Your task to perform on an android device: star an email in the gmail app Image 0: 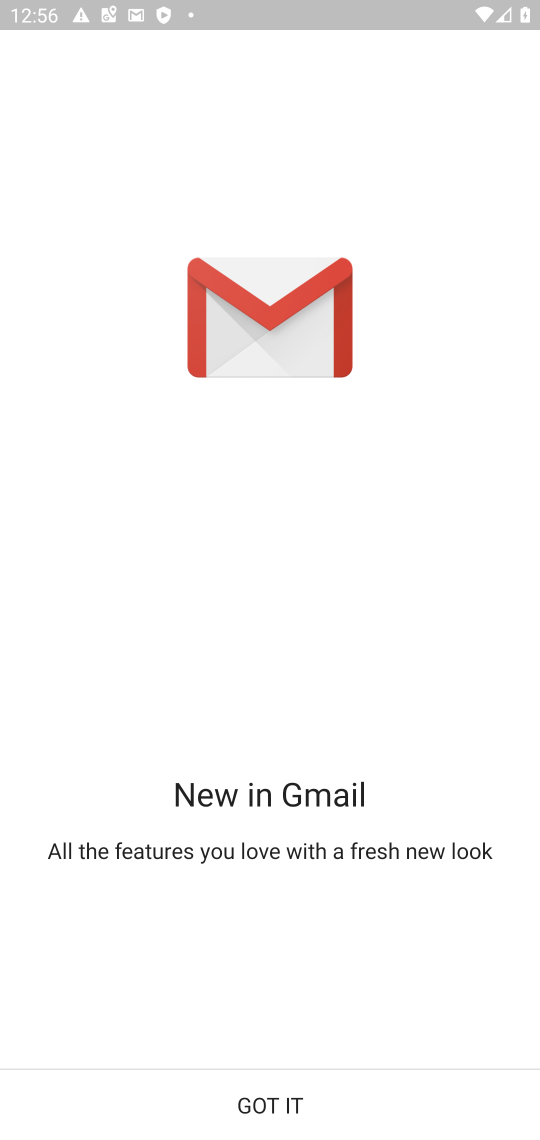
Step 0: click (268, 1105)
Your task to perform on an android device: star an email in the gmail app Image 1: 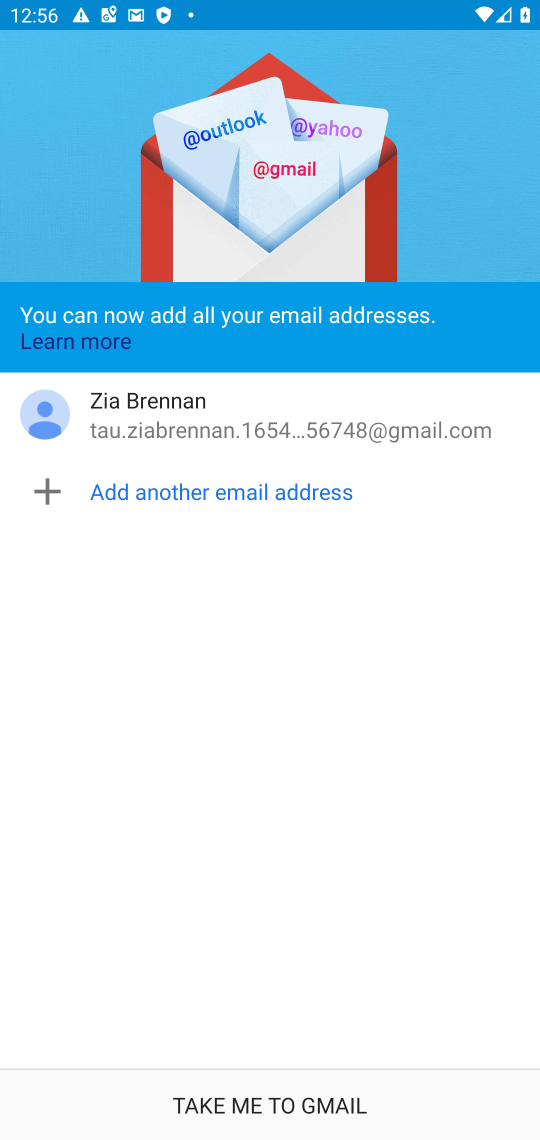
Step 1: click (268, 1105)
Your task to perform on an android device: star an email in the gmail app Image 2: 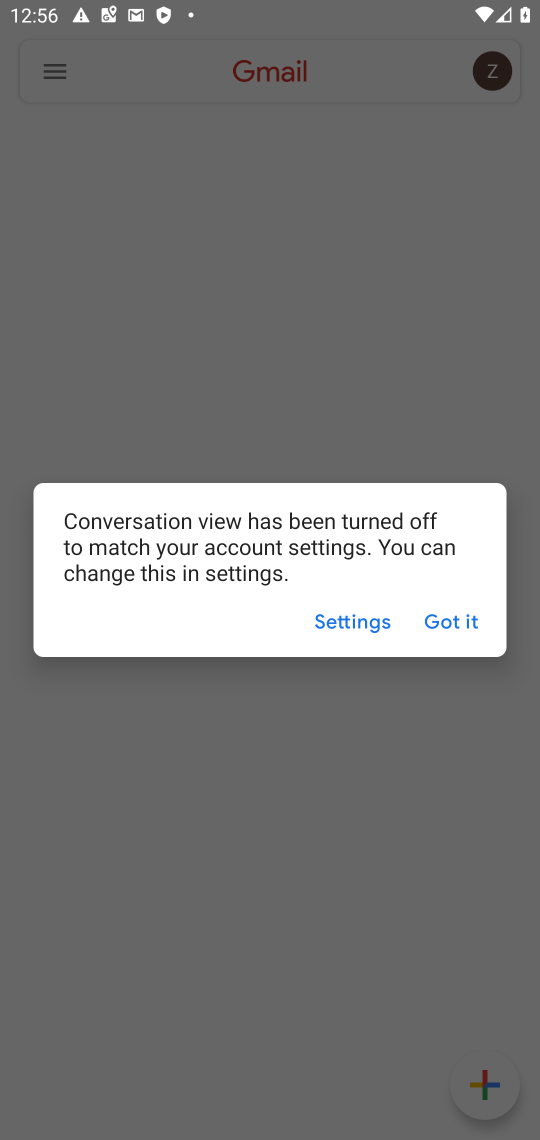
Step 2: click (451, 621)
Your task to perform on an android device: star an email in the gmail app Image 3: 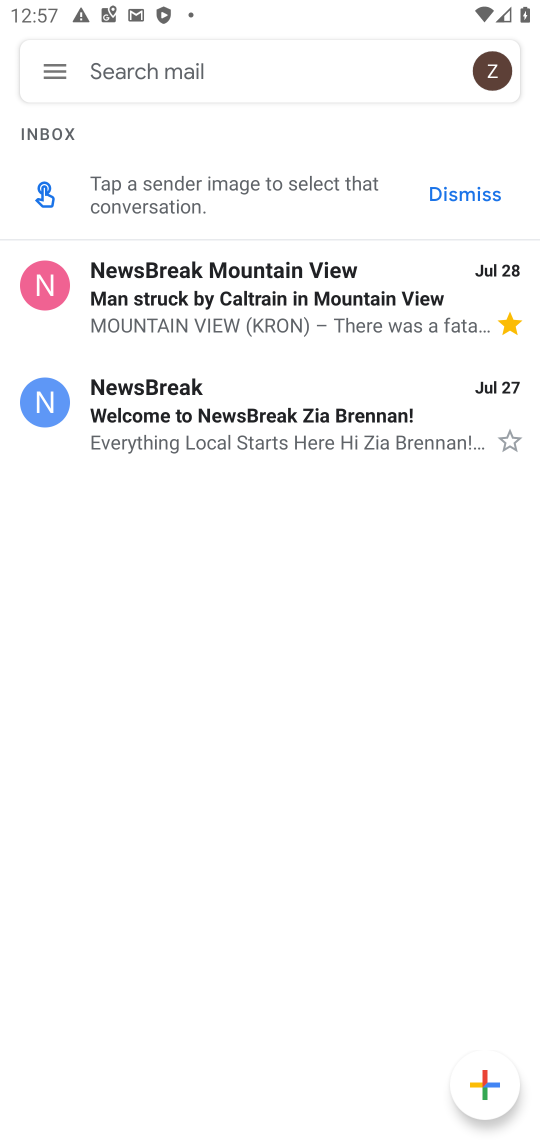
Step 3: click (152, 409)
Your task to perform on an android device: star an email in the gmail app Image 4: 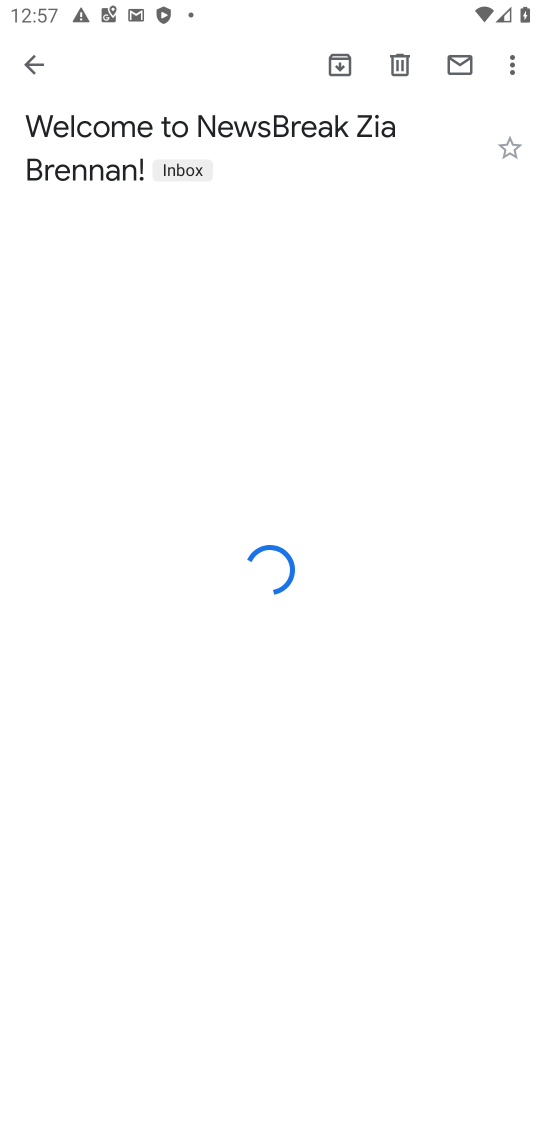
Step 4: click (519, 143)
Your task to perform on an android device: star an email in the gmail app Image 5: 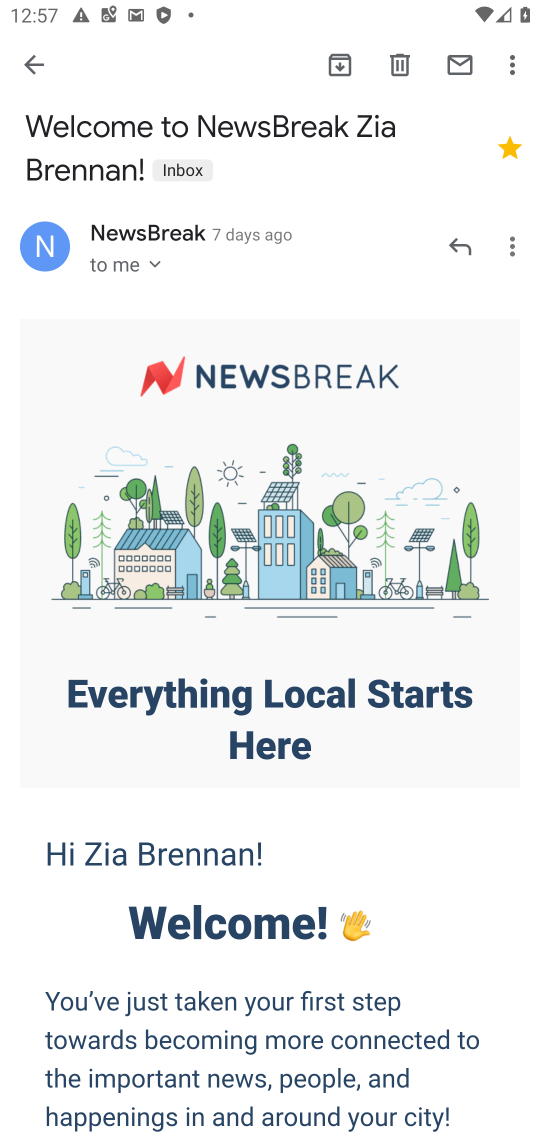
Step 5: task complete